Your task to perform on an android device: turn off airplane mode Image 0: 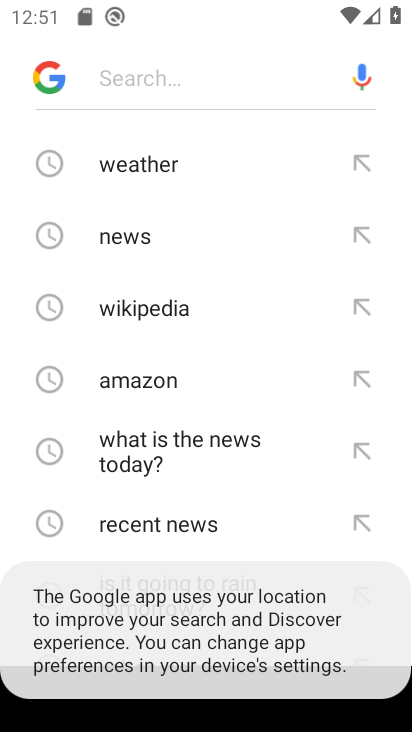
Step 0: drag from (358, 10) to (329, 635)
Your task to perform on an android device: turn off airplane mode Image 1: 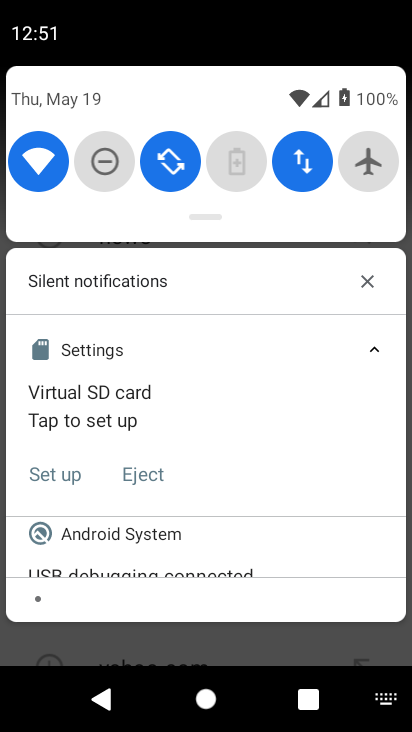
Step 1: task complete